Your task to perform on an android device: Turn off the flashlight Image 0: 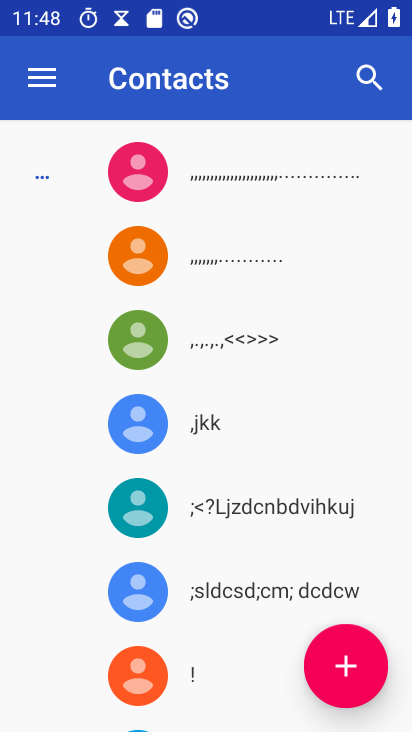
Step 0: press home button
Your task to perform on an android device: Turn off the flashlight Image 1: 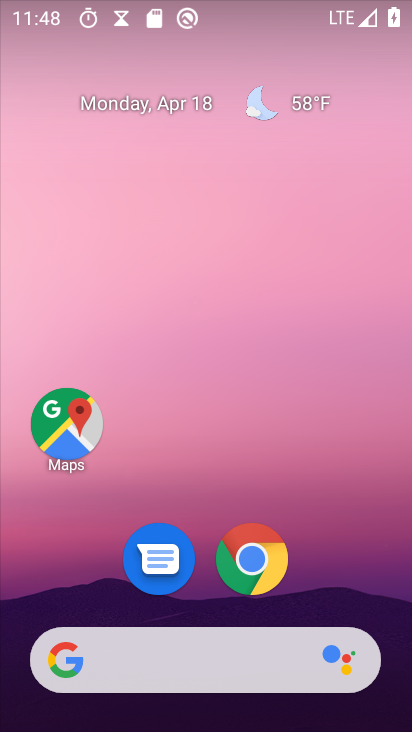
Step 1: drag from (325, 560) to (270, 49)
Your task to perform on an android device: Turn off the flashlight Image 2: 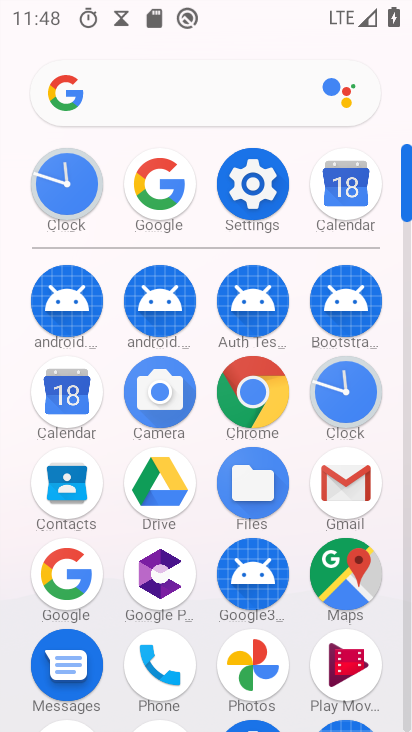
Step 2: click (250, 187)
Your task to perform on an android device: Turn off the flashlight Image 3: 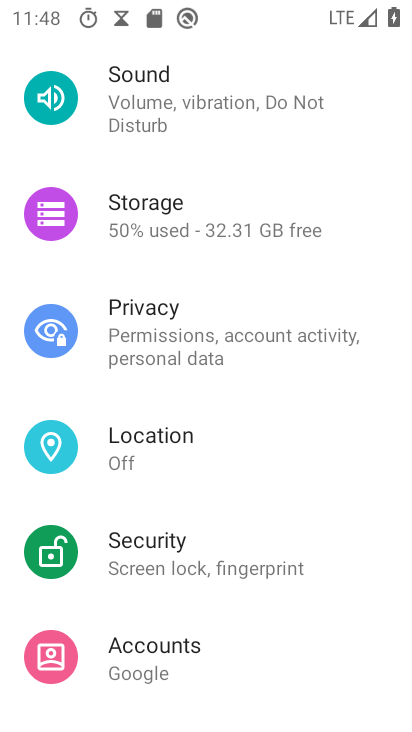
Step 3: drag from (247, 161) to (277, 670)
Your task to perform on an android device: Turn off the flashlight Image 4: 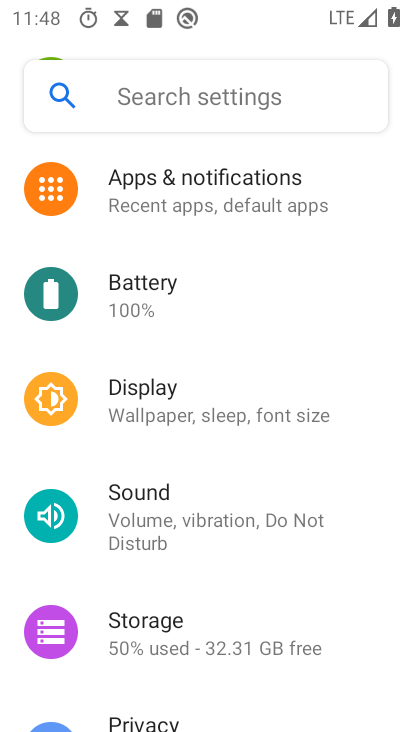
Step 4: click (156, 95)
Your task to perform on an android device: Turn off the flashlight Image 5: 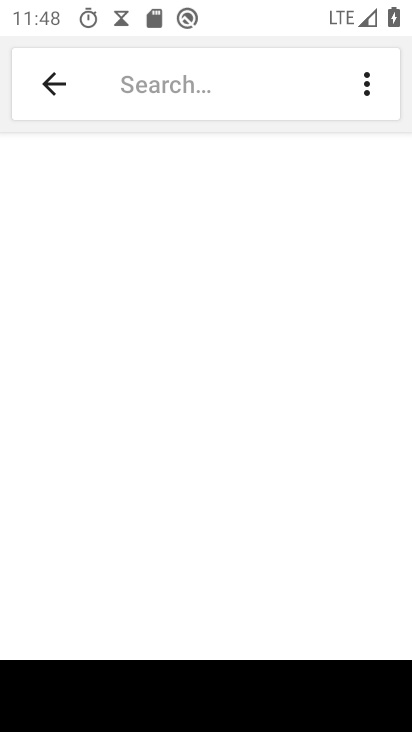
Step 5: type "flashlight"
Your task to perform on an android device: Turn off the flashlight Image 6: 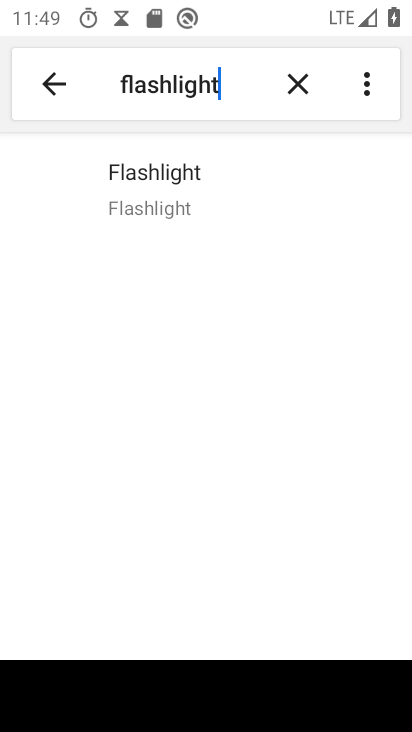
Step 6: click (206, 191)
Your task to perform on an android device: Turn off the flashlight Image 7: 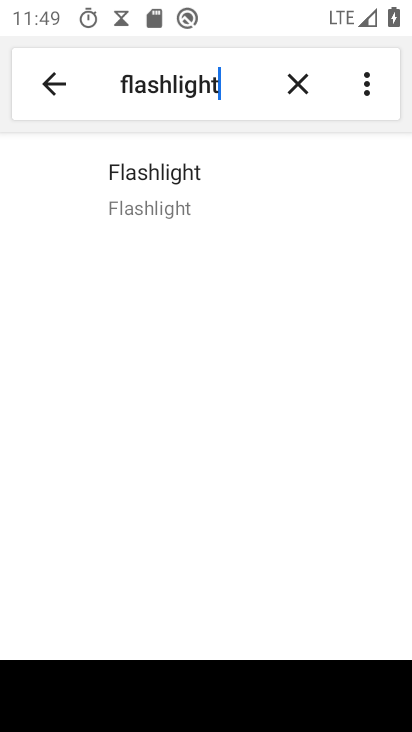
Step 7: click (154, 178)
Your task to perform on an android device: Turn off the flashlight Image 8: 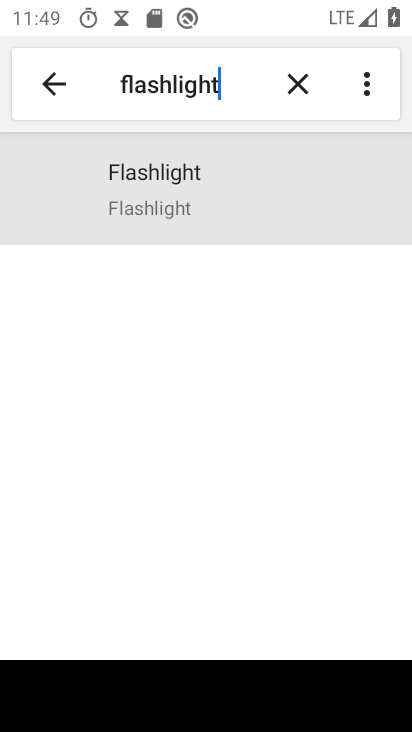
Step 8: click (162, 177)
Your task to perform on an android device: Turn off the flashlight Image 9: 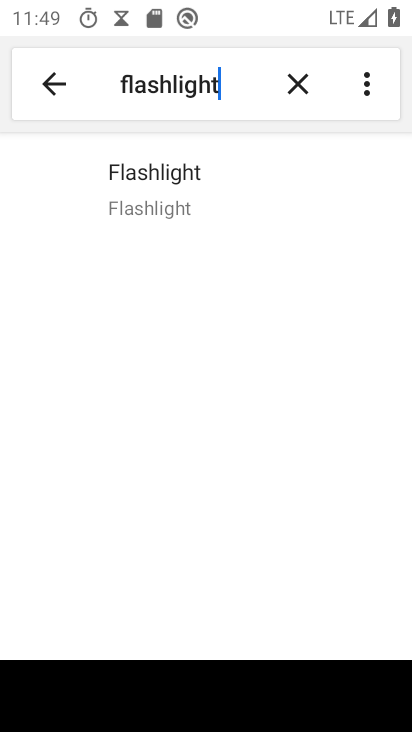
Step 9: click (162, 177)
Your task to perform on an android device: Turn off the flashlight Image 10: 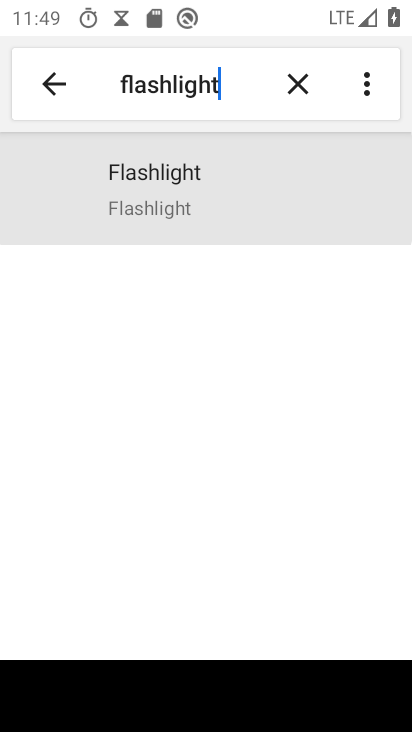
Step 10: click (162, 177)
Your task to perform on an android device: Turn off the flashlight Image 11: 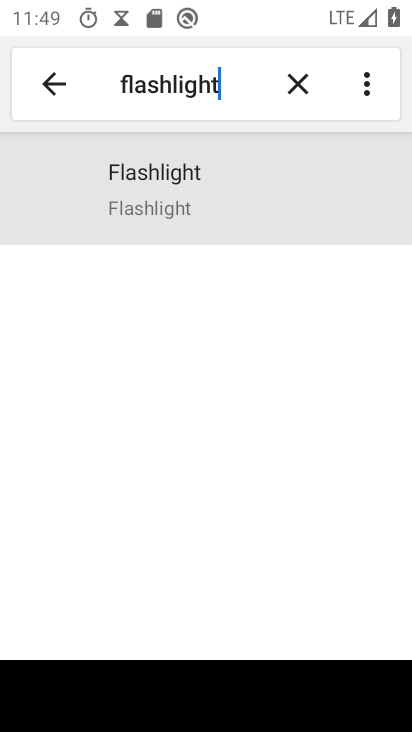
Step 11: click (162, 177)
Your task to perform on an android device: Turn off the flashlight Image 12: 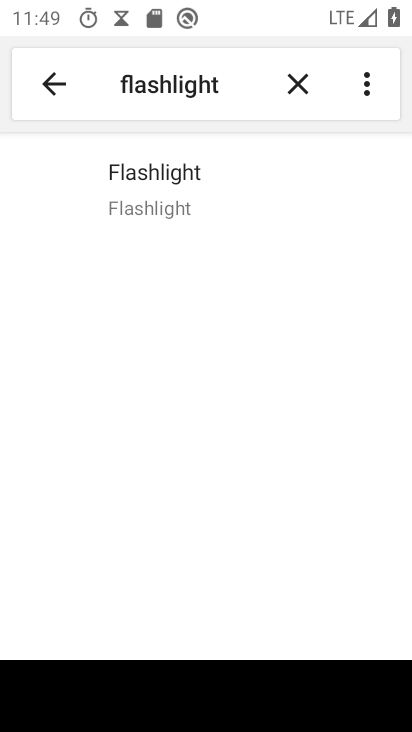
Step 12: task complete